Your task to perform on an android device: What's the weather? Image 0: 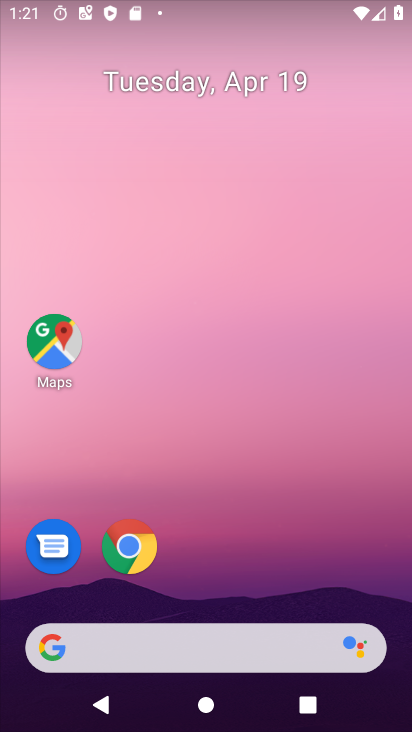
Step 0: drag from (227, 467) to (302, 34)
Your task to perform on an android device: What's the weather? Image 1: 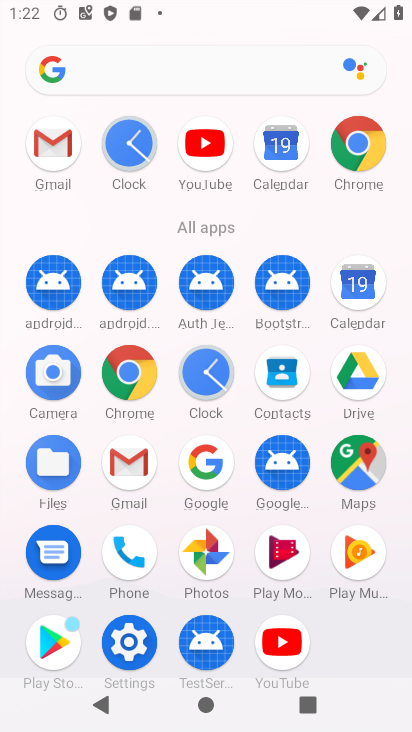
Step 1: click (364, 279)
Your task to perform on an android device: What's the weather? Image 2: 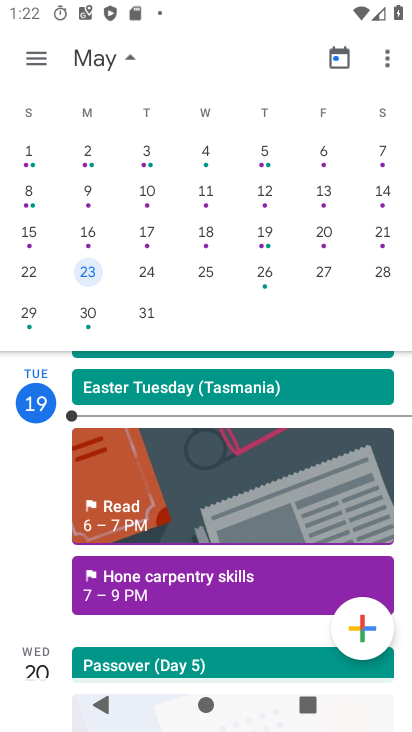
Step 2: press back button
Your task to perform on an android device: What's the weather? Image 3: 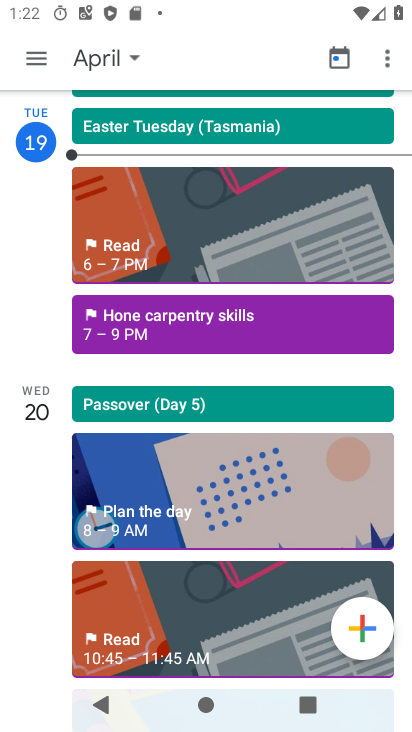
Step 3: press home button
Your task to perform on an android device: What's the weather? Image 4: 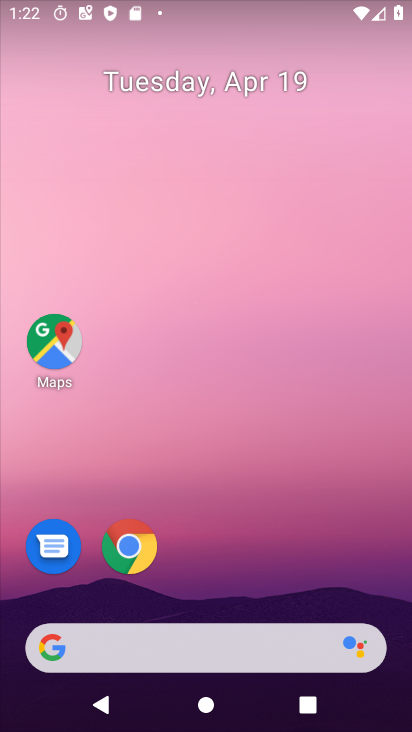
Step 4: drag from (204, 546) to (294, 34)
Your task to perform on an android device: What's the weather? Image 5: 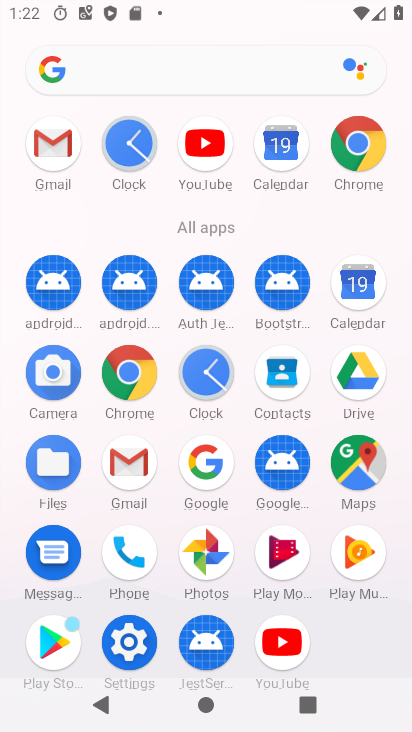
Step 5: press home button
Your task to perform on an android device: What's the weather? Image 6: 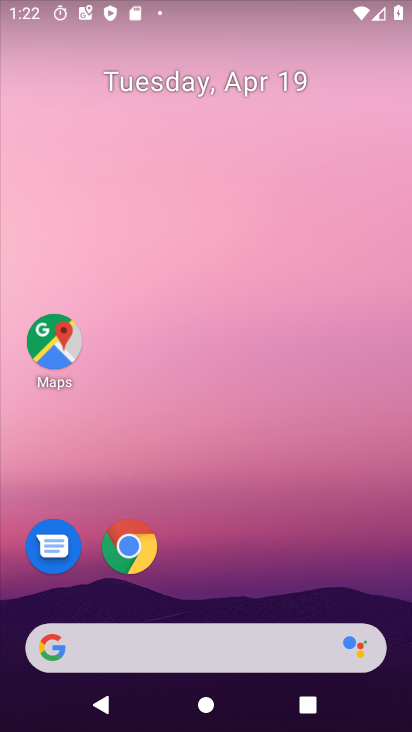
Step 6: click (162, 640)
Your task to perform on an android device: What's the weather? Image 7: 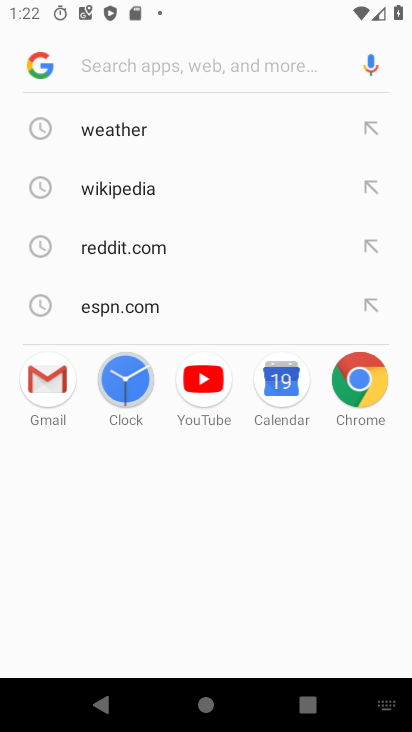
Step 7: click (125, 126)
Your task to perform on an android device: What's the weather? Image 8: 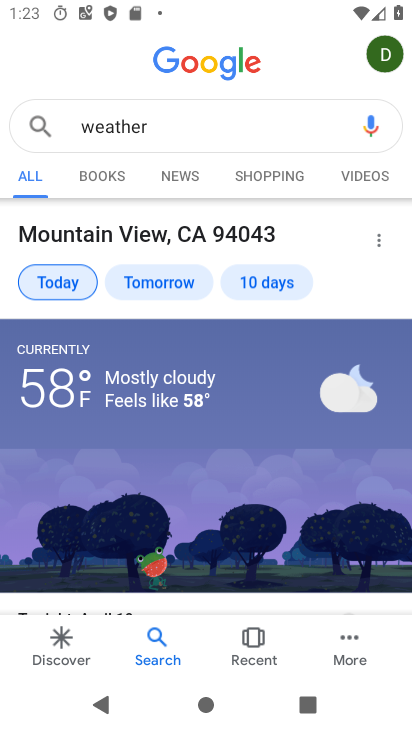
Step 8: task complete